Your task to perform on an android device: Go to privacy settings Image 0: 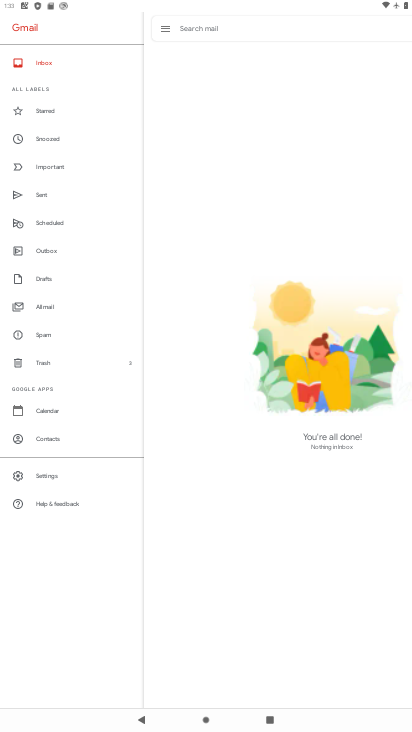
Step 0: press home button
Your task to perform on an android device: Go to privacy settings Image 1: 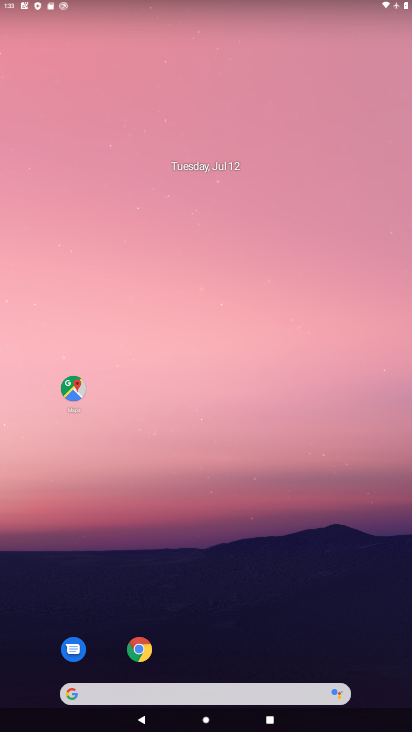
Step 1: drag from (277, 622) to (195, 159)
Your task to perform on an android device: Go to privacy settings Image 2: 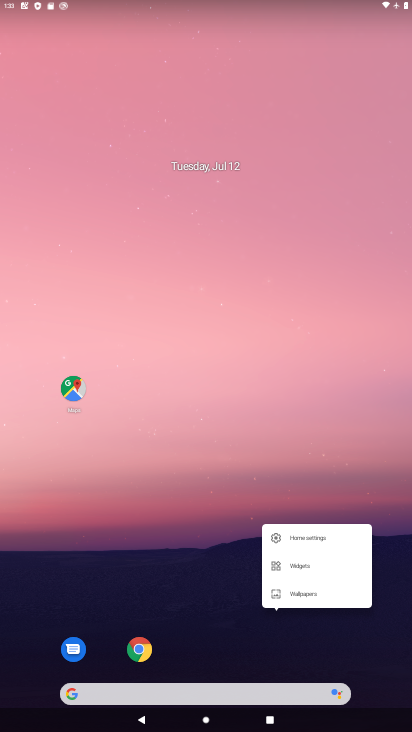
Step 2: click (195, 400)
Your task to perform on an android device: Go to privacy settings Image 3: 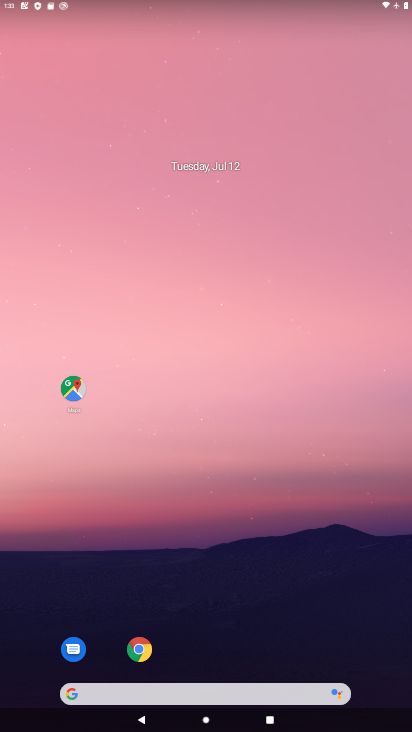
Step 3: drag from (211, 630) to (104, 95)
Your task to perform on an android device: Go to privacy settings Image 4: 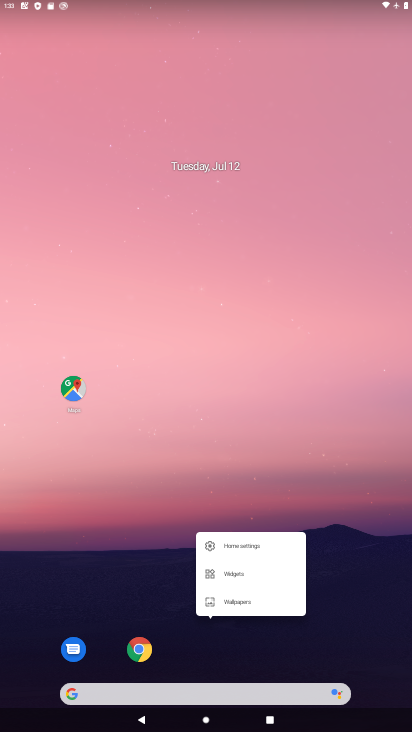
Step 4: click (104, 95)
Your task to perform on an android device: Go to privacy settings Image 5: 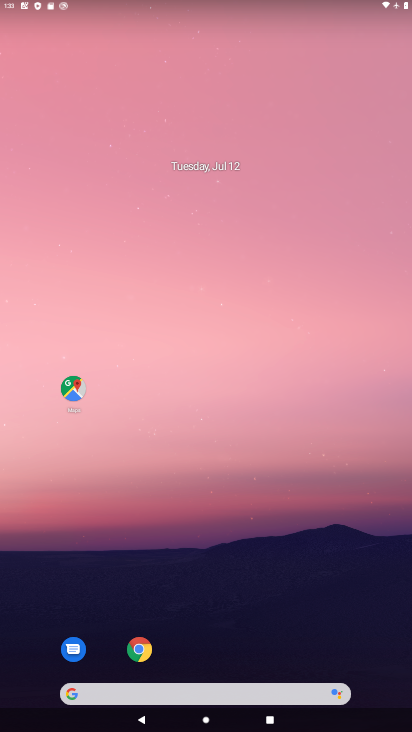
Step 5: drag from (199, 624) to (173, 185)
Your task to perform on an android device: Go to privacy settings Image 6: 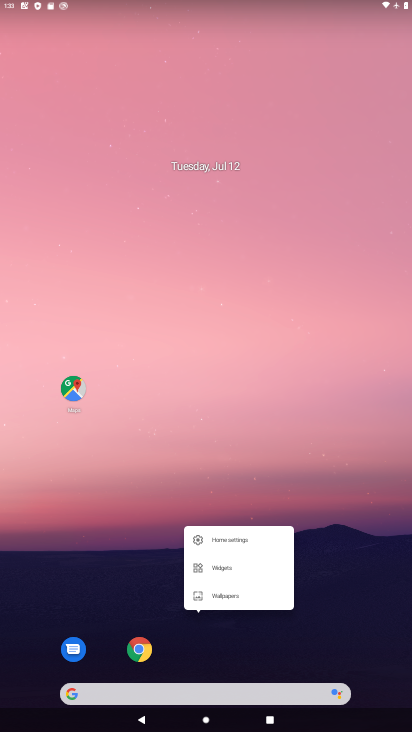
Step 6: click (205, 366)
Your task to perform on an android device: Go to privacy settings Image 7: 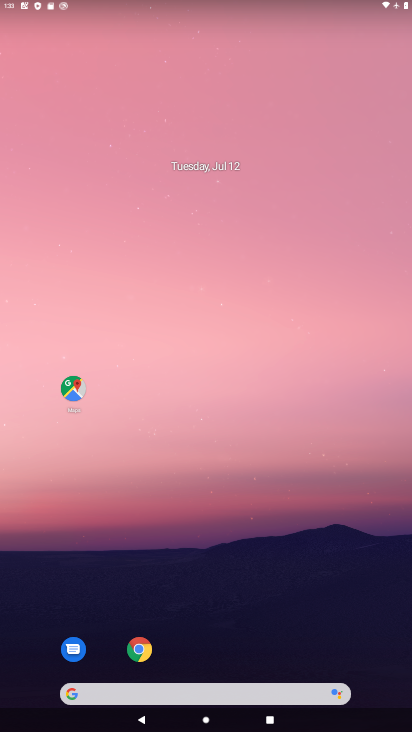
Step 7: click (205, 374)
Your task to perform on an android device: Go to privacy settings Image 8: 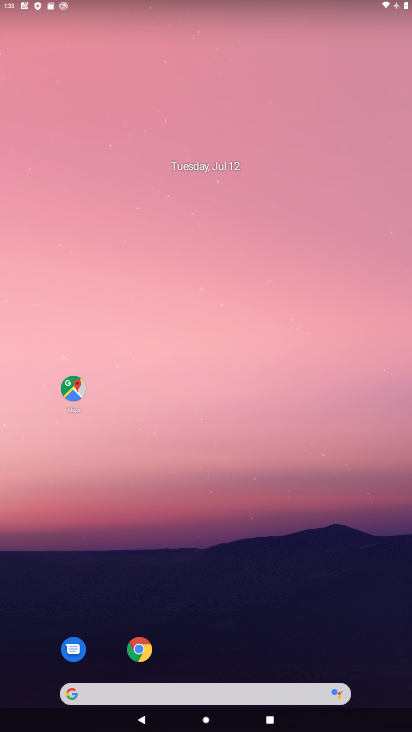
Step 8: drag from (221, 638) to (169, 44)
Your task to perform on an android device: Go to privacy settings Image 9: 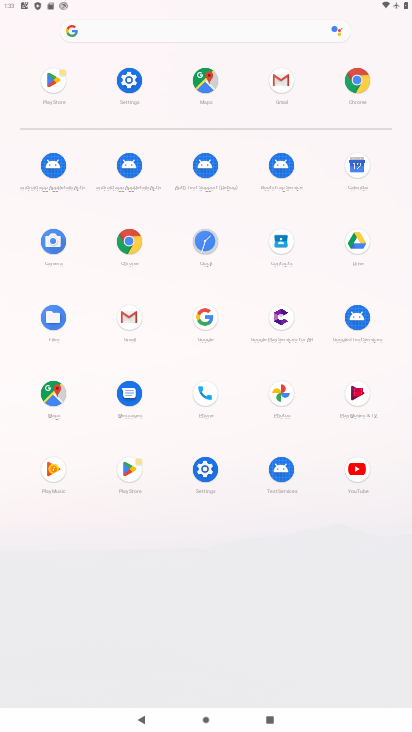
Step 9: click (132, 97)
Your task to perform on an android device: Go to privacy settings Image 10: 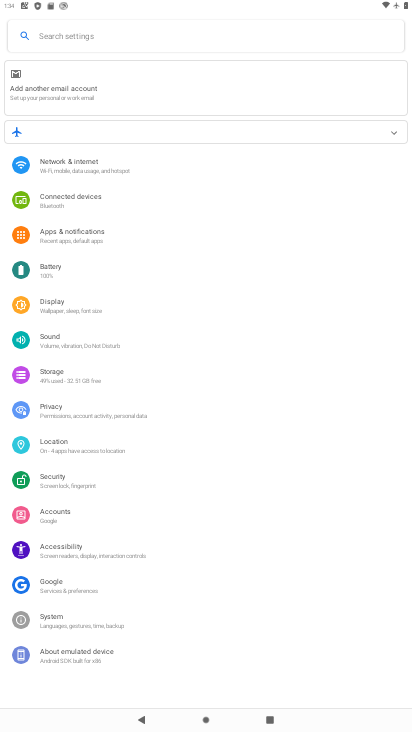
Step 10: click (113, 422)
Your task to perform on an android device: Go to privacy settings Image 11: 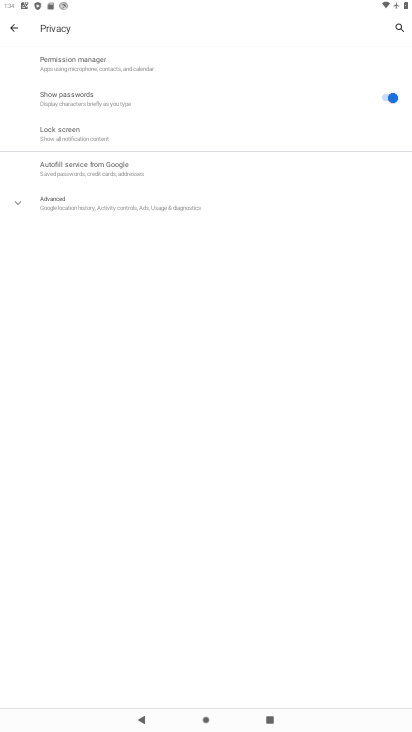
Step 11: task complete